Your task to perform on an android device: Open ESPN.com Image 0: 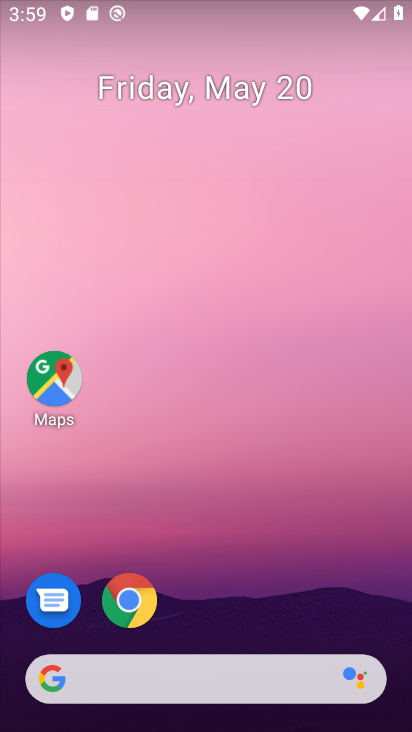
Step 0: drag from (246, 542) to (202, 49)
Your task to perform on an android device: Open ESPN.com Image 1: 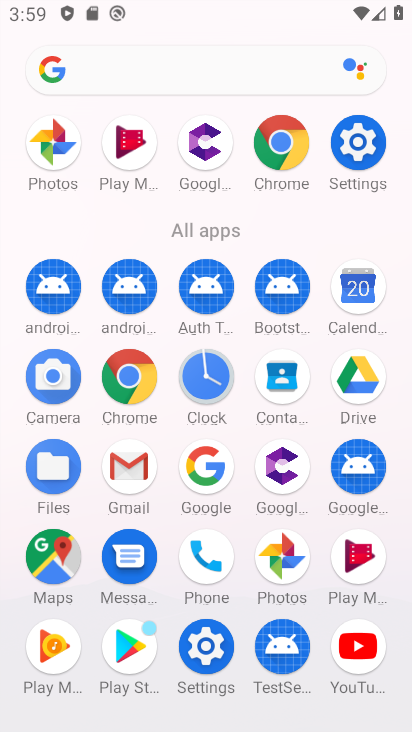
Step 1: drag from (10, 578) to (23, 259)
Your task to perform on an android device: Open ESPN.com Image 2: 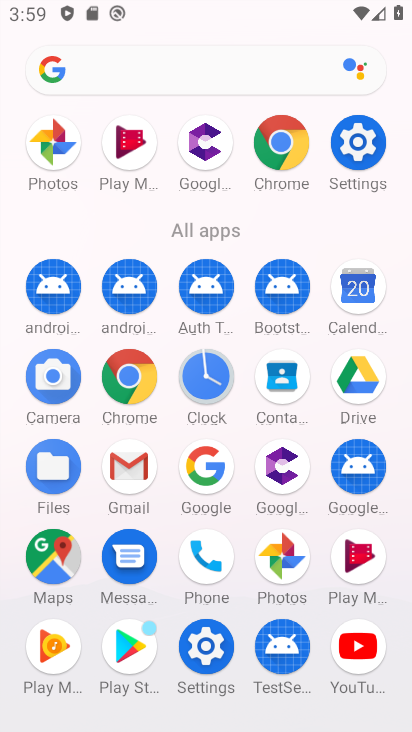
Step 2: click (125, 365)
Your task to perform on an android device: Open ESPN.com Image 3: 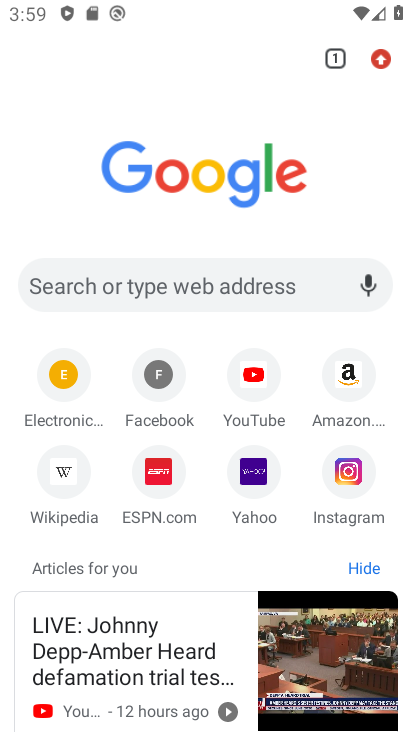
Step 3: click (169, 274)
Your task to perform on an android device: Open ESPN.com Image 4: 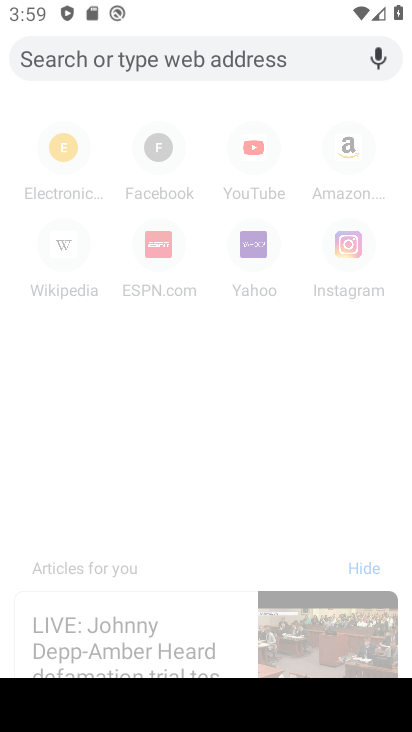
Step 4: type "ESPN.com"
Your task to perform on an android device: Open ESPN.com Image 5: 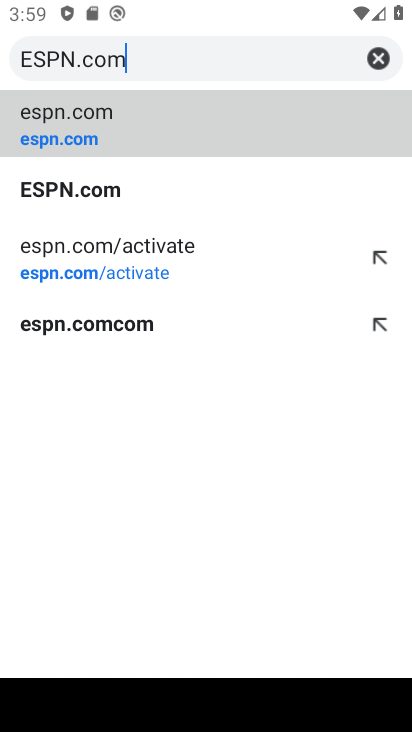
Step 5: type ""
Your task to perform on an android device: Open ESPN.com Image 6: 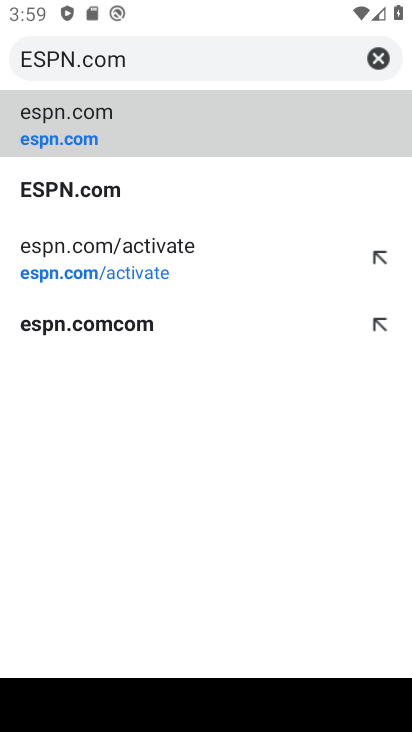
Step 6: click (208, 118)
Your task to perform on an android device: Open ESPN.com Image 7: 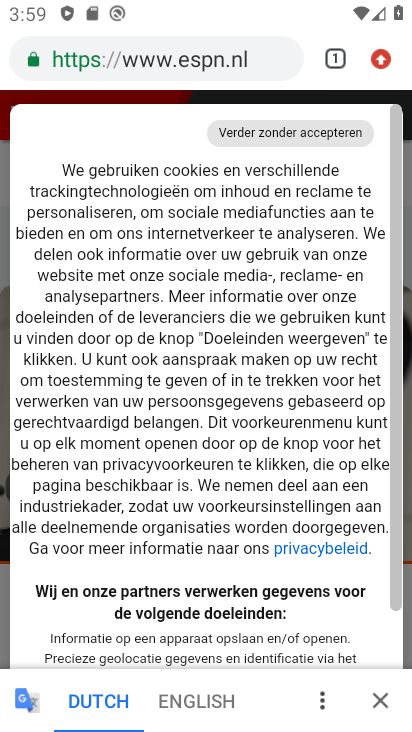
Step 7: drag from (273, 492) to (273, 178)
Your task to perform on an android device: Open ESPN.com Image 8: 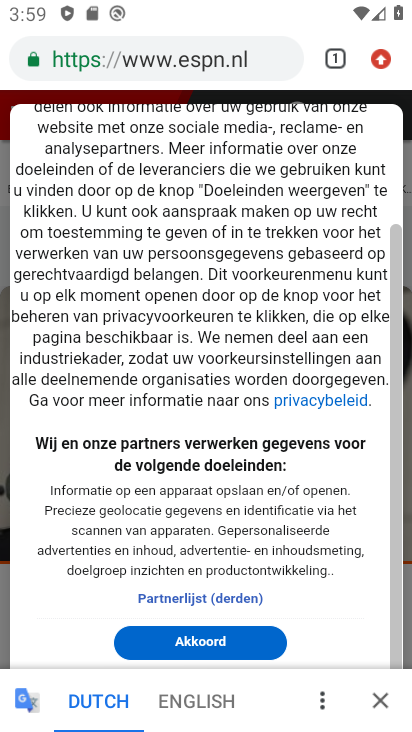
Step 8: click (206, 629)
Your task to perform on an android device: Open ESPN.com Image 9: 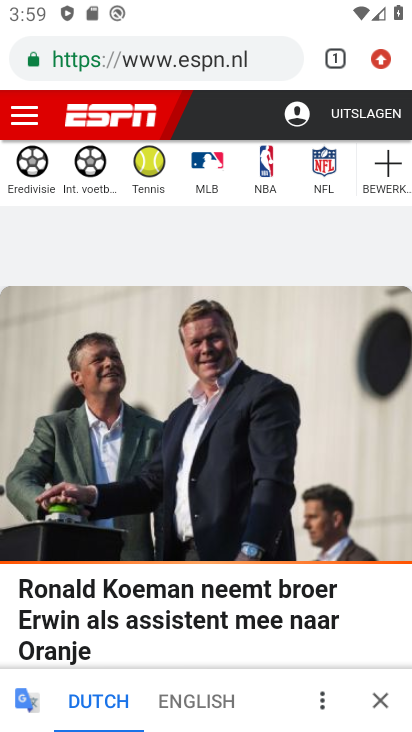
Step 9: click (187, 708)
Your task to perform on an android device: Open ESPN.com Image 10: 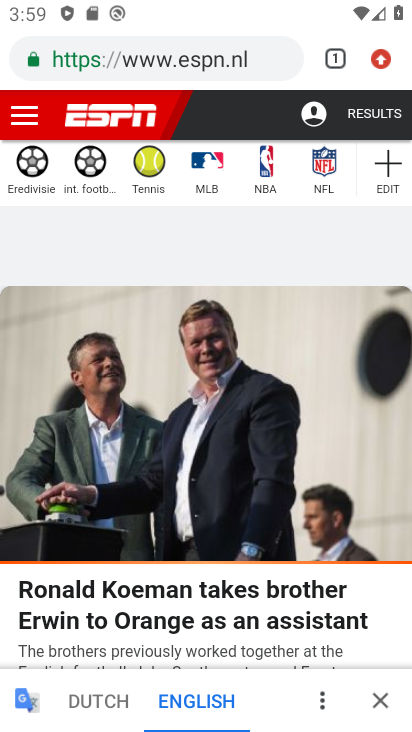
Step 10: task complete